Your task to perform on an android device: Go to sound settings Image 0: 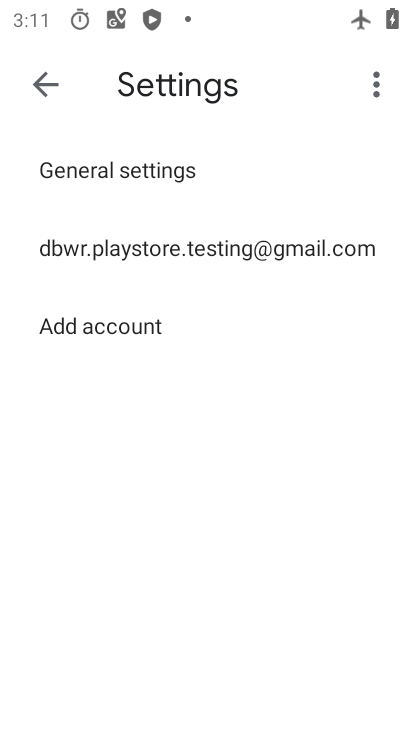
Step 0: press home button
Your task to perform on an android device: Go to sound settings Image 1: 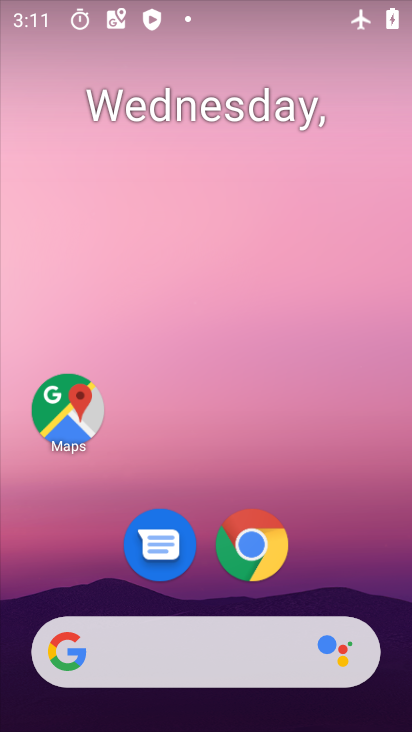
Step 1: drag from (346, 564) to (346, 126)
Your task to perform on an android device: Go to sound settings Image 2: 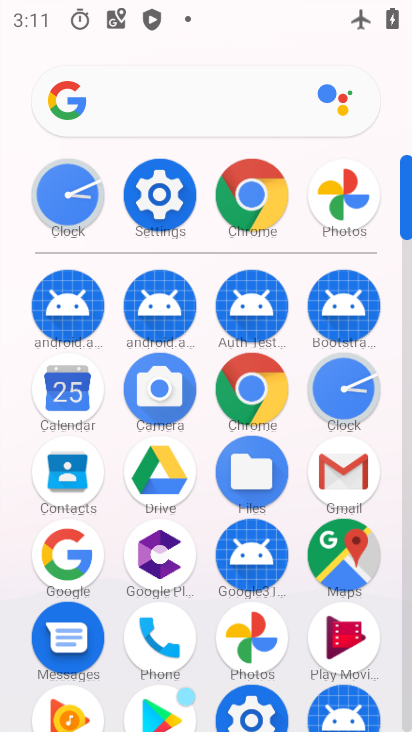
Step 2: click (159, 208)
Your task to perform on an android device: Go to sound settings Image 3: 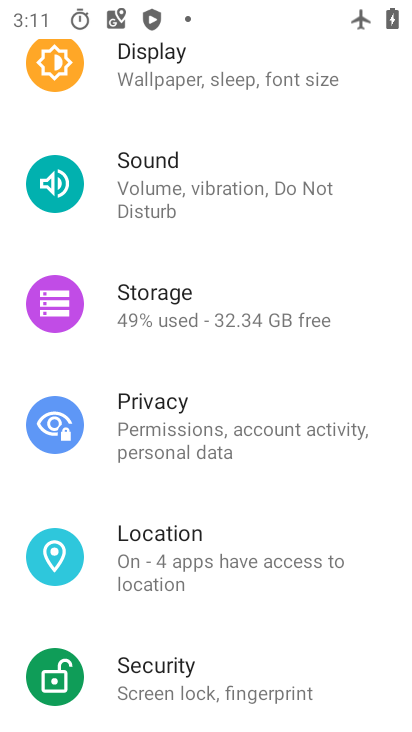
Step 3: click (161, 220)
Your task to perform on an android device: Go to sound settings Image 4: 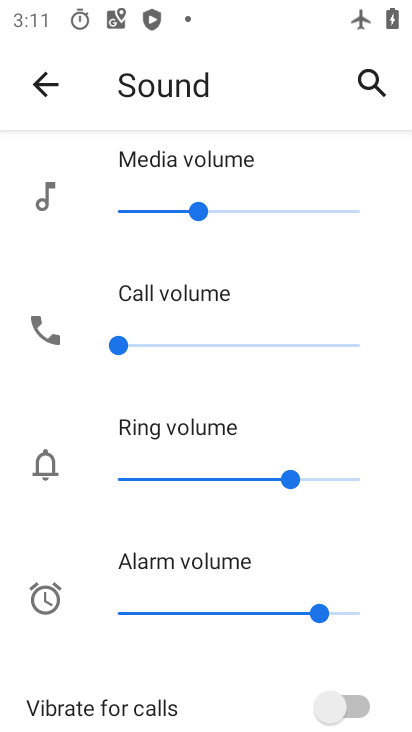
Step 4: task complete